Your task to perform on an android device: snooze an email in the gmail app Image 0: 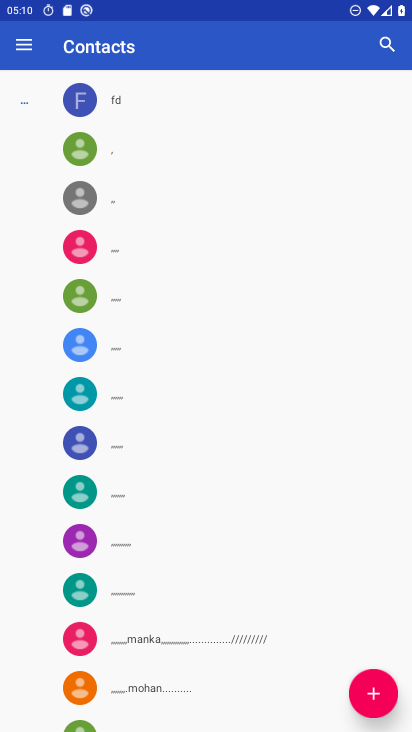
Step 0: press home button
Your task to perform on an android device: snooze an email in the gmail app Image 1: 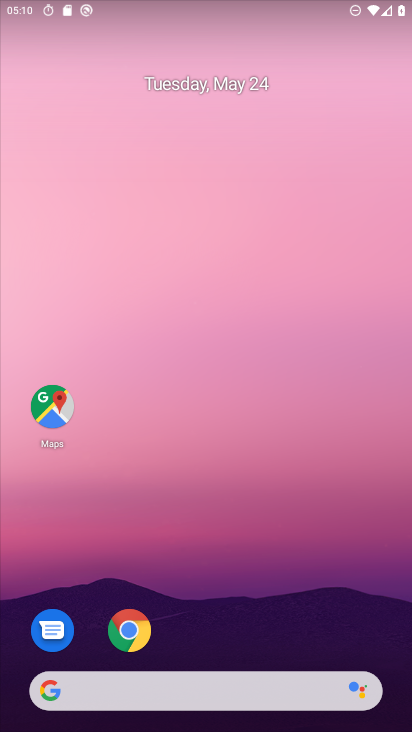
Step 1: drag from (196, 614) to (170, 114)
Your task to perform on an android device: snooze an email in the gmail app Image 2: 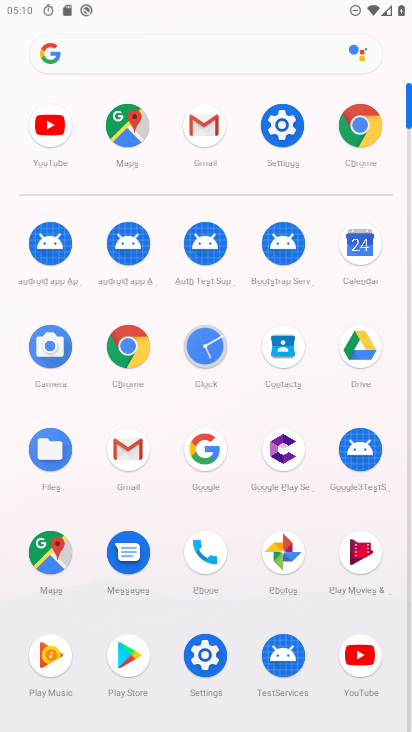
Step 2: click (195, 107)
Your task to perform on an android device: snooze an email in the gmail app Image 3: 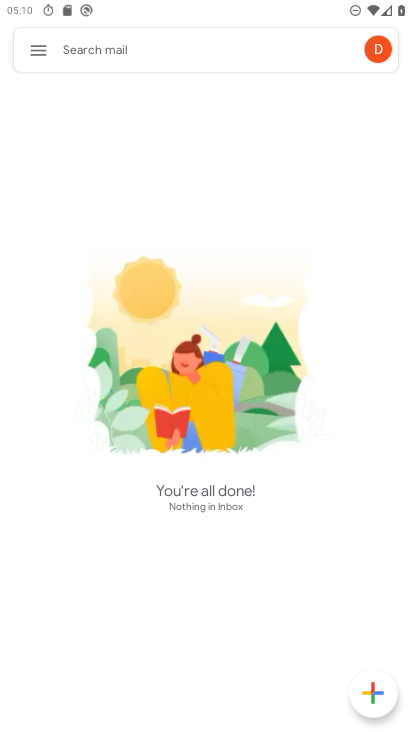
Step 3: task complete